Your task to perform on an android device: Go to location settings Image 0: 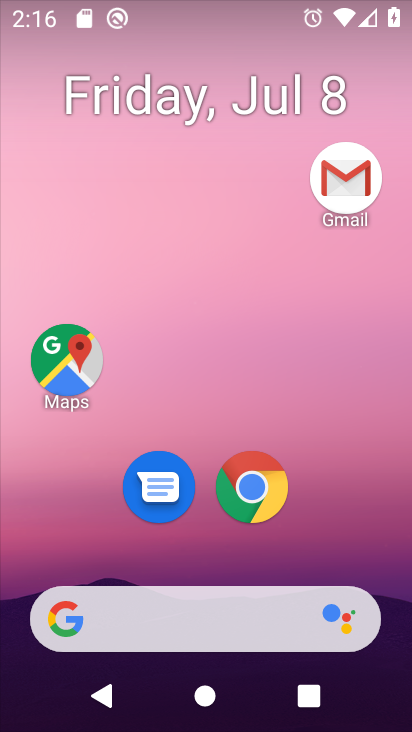
Step 0: drag from (363, 529) to (376, 123)
Your task to perform on an android device: Go to location settings Image 1: 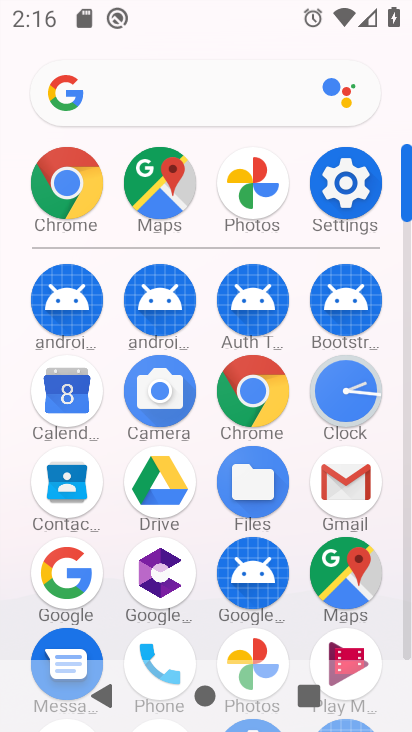
Step 1: click (358, 186)
Your task to perform on an android device: Go to location settings Image 2: 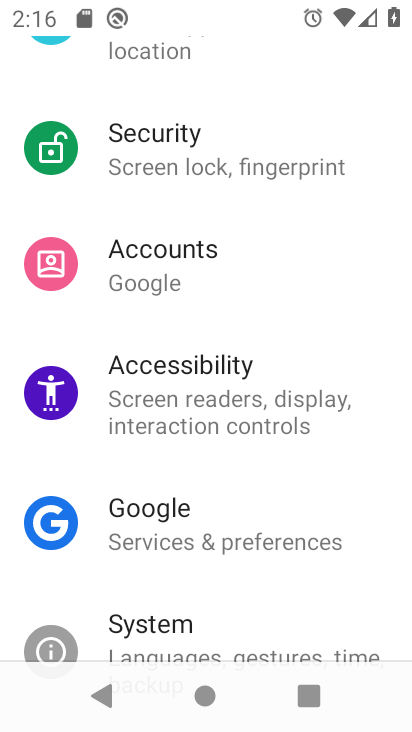
Step 2: drag from (337, 276) to (349, 435)
Your task to perform on an android device: Go to location settings Image 3: 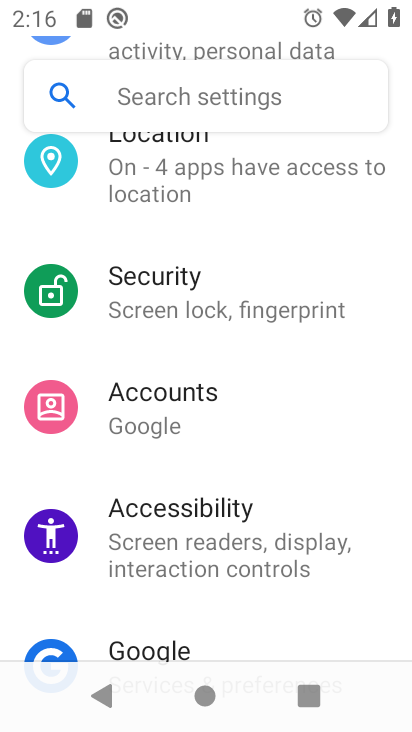
Step 3: drag from (371, 350) to (365, 469)
Your task to perform on an android device: Go to location settings Image 4: 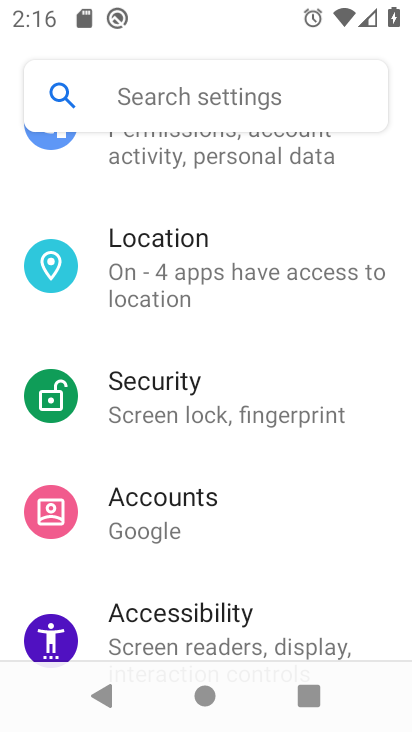
Step 4: drag from (370, 367) to (364, 506)
Your task to perform on an android device: Go to location settings Image 5: 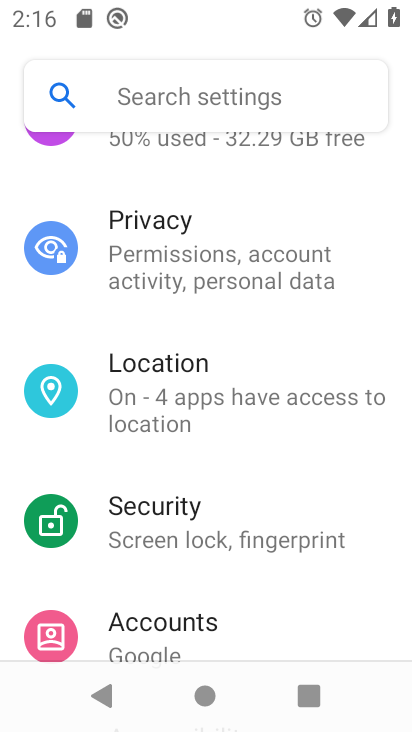
Step 5: drag from (372, 327) to (362, 465)
Your task to perform on an android device: Go to location settings Image 6: 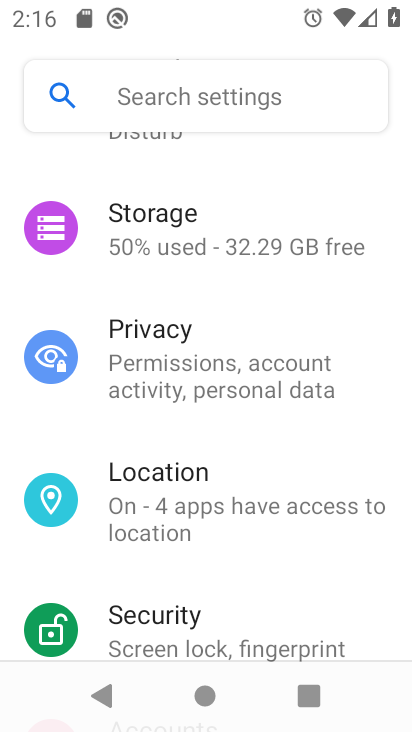
Step 6: drag from (366, 320) to (372, 431)
Your task to perform on an android device: Go to location settings Image 7: 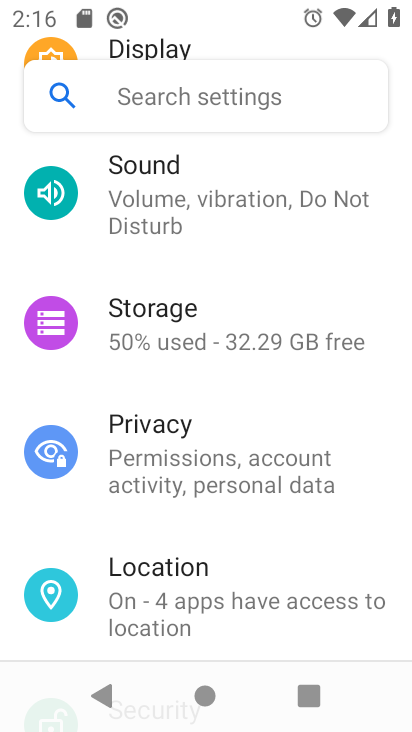
Step 7: click (259, 583)
Your task to perform on an android device: Go to location settings Image 8: 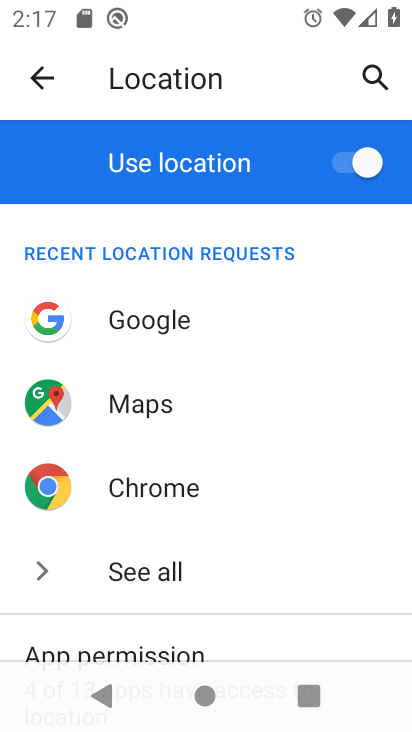
Step 8: task complete